Your task to perform on an android device: change text size in settings app Image 0: 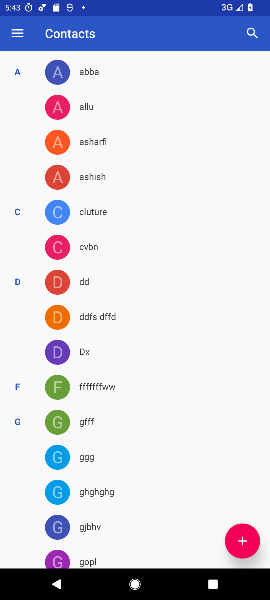
Step 0: press home button
Your task to perform on an android device: change text size in settings app Image 1: 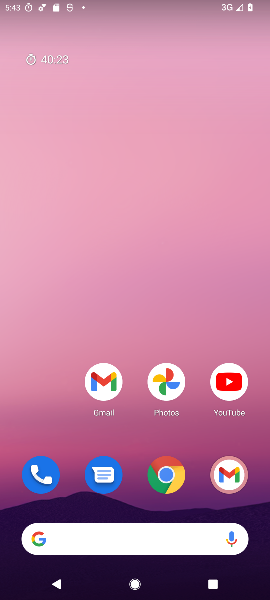
Step 1: drag from (58, 439) to (44, 172)
Your task to perform on an android device: change text size in settings app Image 2: 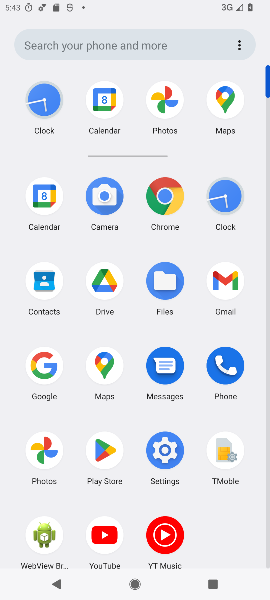
Step 2: click (160, 457)
Your task to perform on an android device: change text size in settings app Image 3: 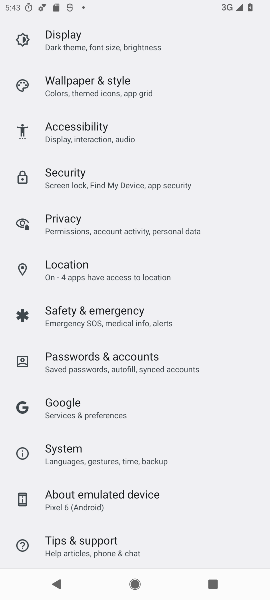
Step 3: drag from (235, 189) to (238, 284)
Your task to perform on an android device: change text size in settings app Image 4: 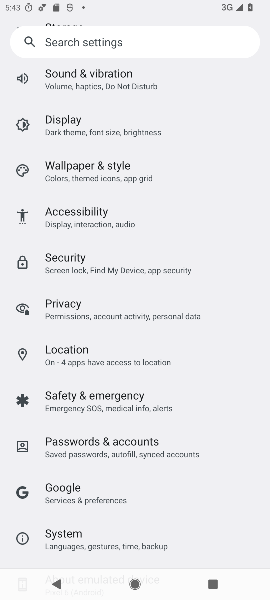
Step 4: drag from (238, 144) to (245, 239)
Your task to perform on an android device: change text size in settings app Image 5: 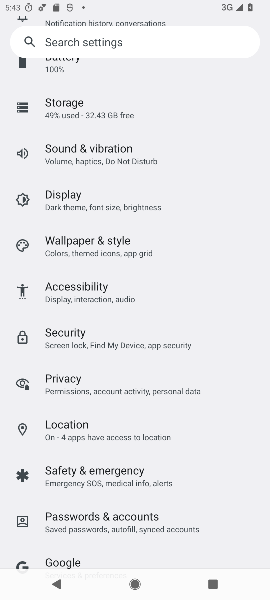
Step 5: drag from (224, 125) to (226, 255)
Your task to perform on an android device: change text size in settings app Image 6: 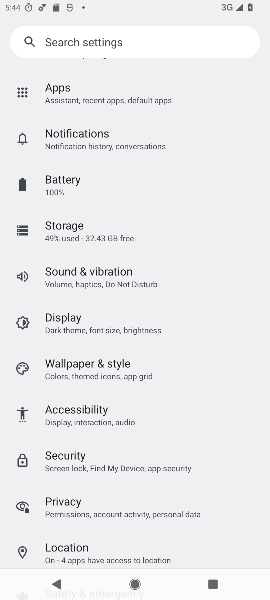
Step 6: drag from (229, 115) to (229, 277)
Your task to perform on an android device: change text size in settings app Image 7: 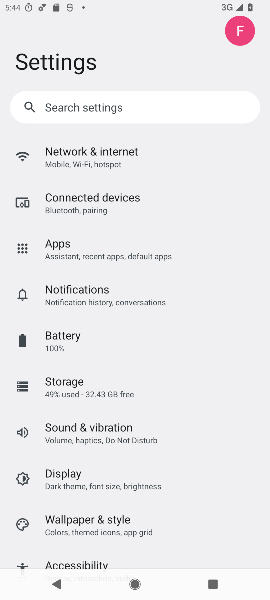
Step 7: click (109, 478)
Your task to perform on an android device: change text size in settings app Image 8: 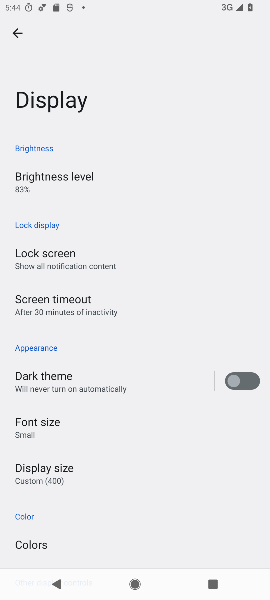
Step 8: click (48, 422)
Your task to perform on an android device: change text size in settings app Image 9: 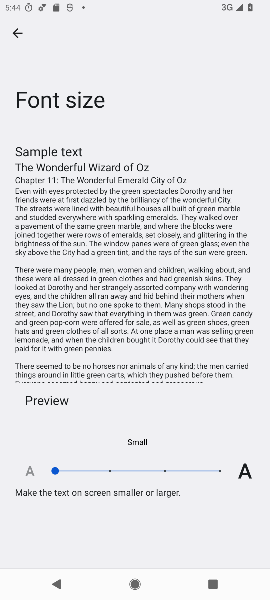
Step 9: click (222, 470)
Your task to perform on an android device: change text size in settings app Image 10: 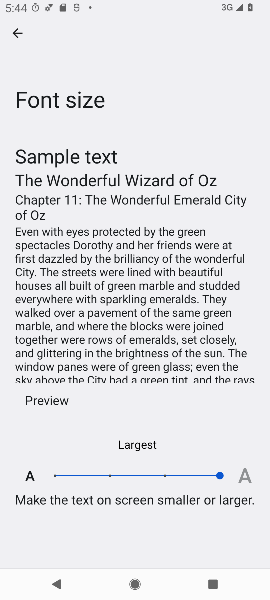
Step 10: task complete